Your task to perform on an android device: set an alarm Image 0: 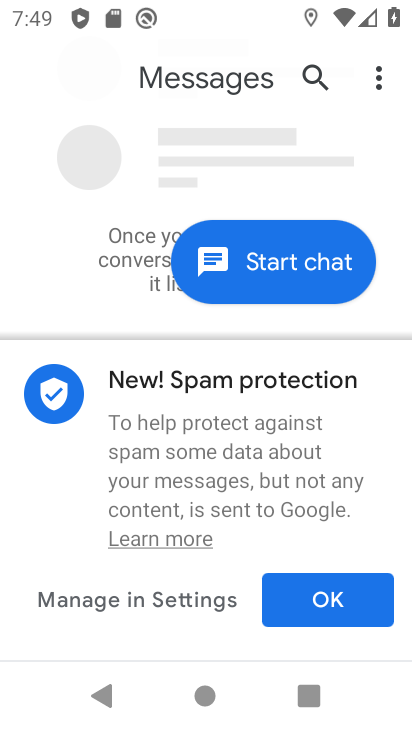
Step 0: press home button
Your task to perform on an android device: set an alarm Image 1: 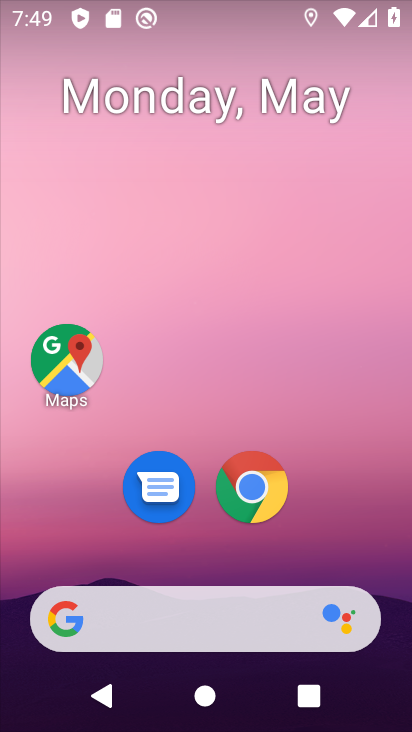
Step 1: drag from (310, 557) to (315, 147)
Your task to perform on an android device: set an alarm Image 2: 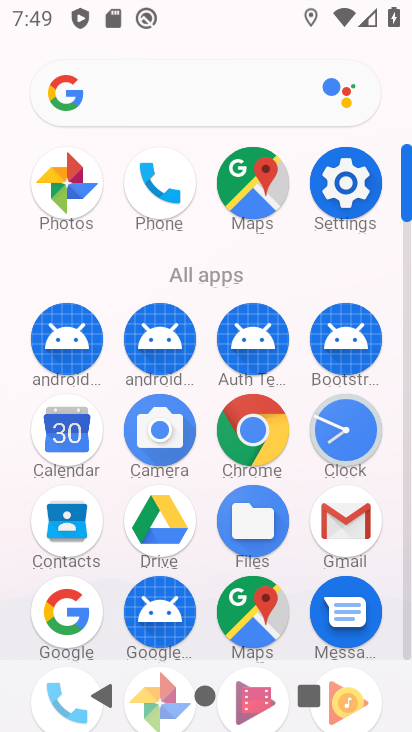
Step 2: click (355, 441)
Your task to perform on an android device: set an alarm Image 3: 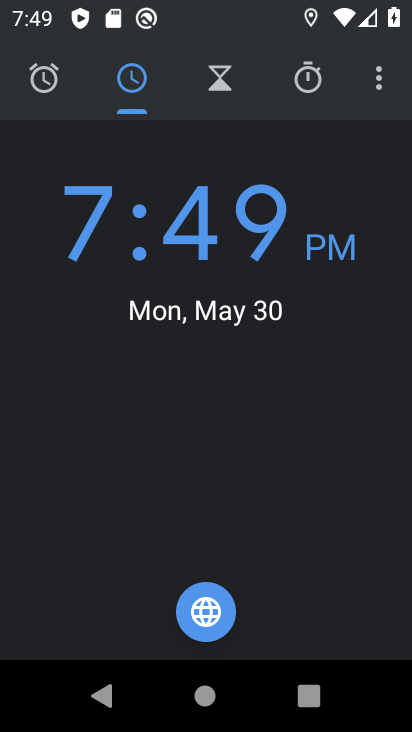
Step 3: click (39, 91)
Your task to perform on an android device: set an alarm Image 4: 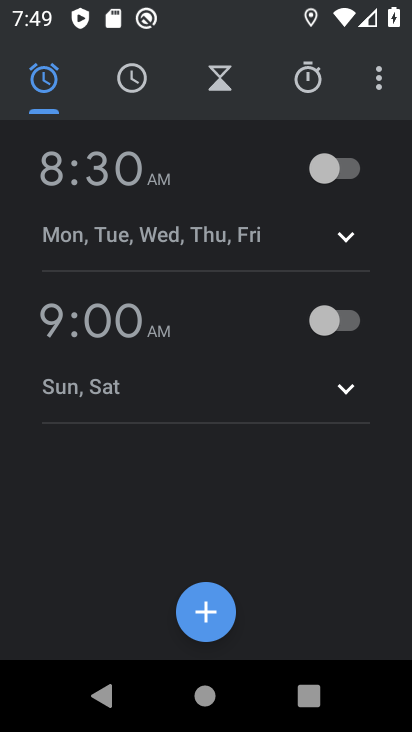
Step 4: click (330, 164)
Your task to perform on an android device: set an alarm Image 5: 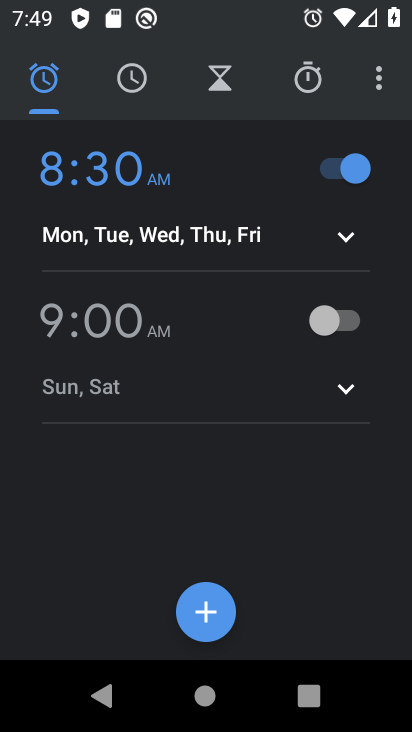
Step 5: task complete